Your task to perform on an android device: turn off airplane mode Image 0: 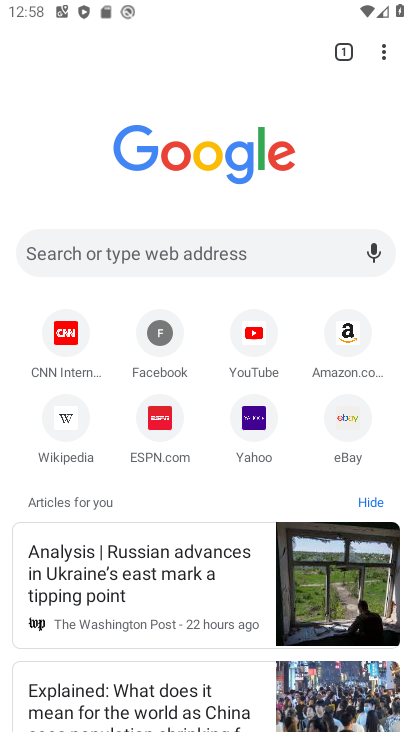
Step 0: task complete